Your task to perform on an android device: Search for seafood restaurants on Google Maps Image 0: 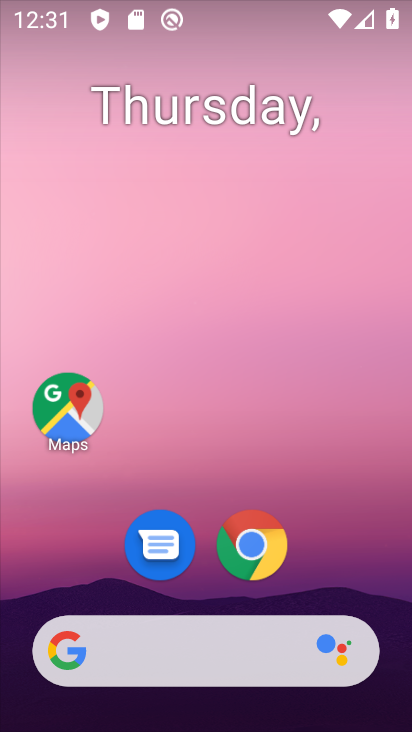
Step 0: drag from (314, 587) to (271, 247)
Your task to perform on an android device: Search for seafood restaurants on Google Maps Image 1: 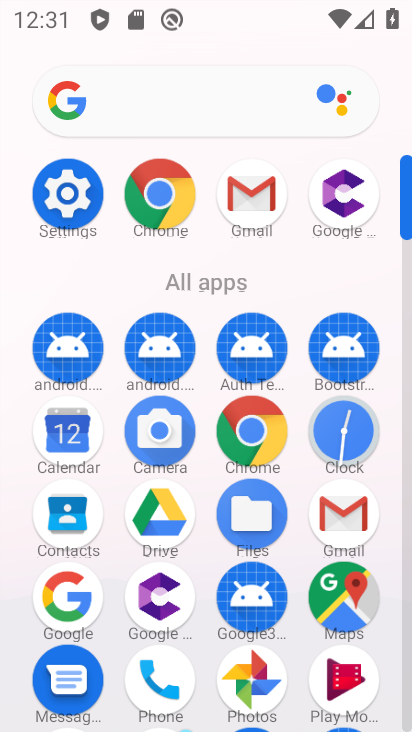
Step 1: click (333, 611)
Your task to perform on an android device: Search for seafood restaurants on Google Maps Image 2: 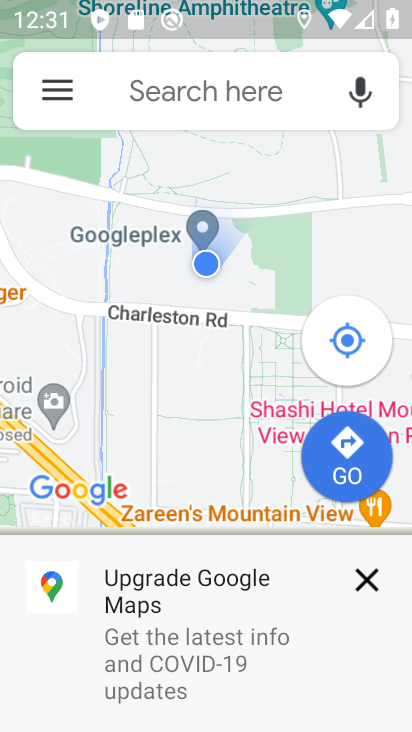
Step 2: click (172, 112)
Your task to perform on an android device: Search for seafood restaurants on Google Maps Image 3: 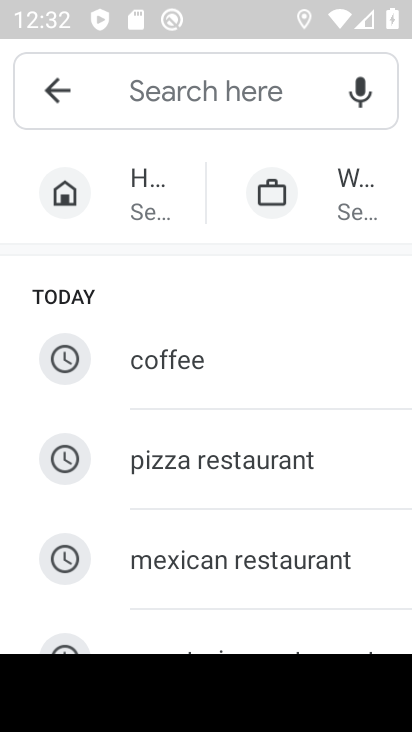
Step 3: drag from (215, 576) to (210, 282)
Your task to perform on an android device: Search for seafood restaurants on Google Maps Image 4: 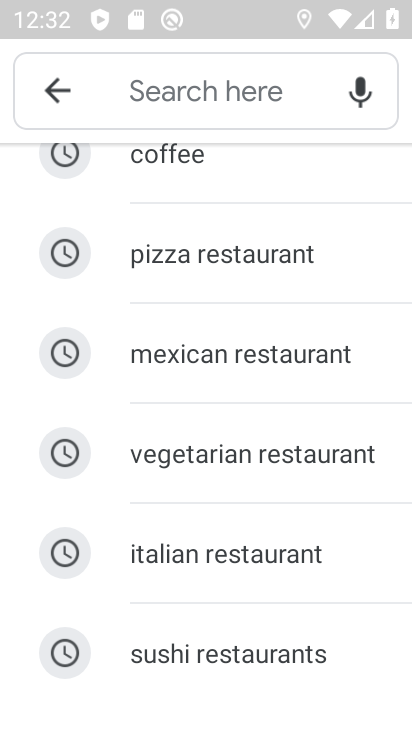
Step 4: drag from (206, 597) to (202, 322)
Your task to perform on an android device: Search for seafood restaurants on Google Maps Image 5: 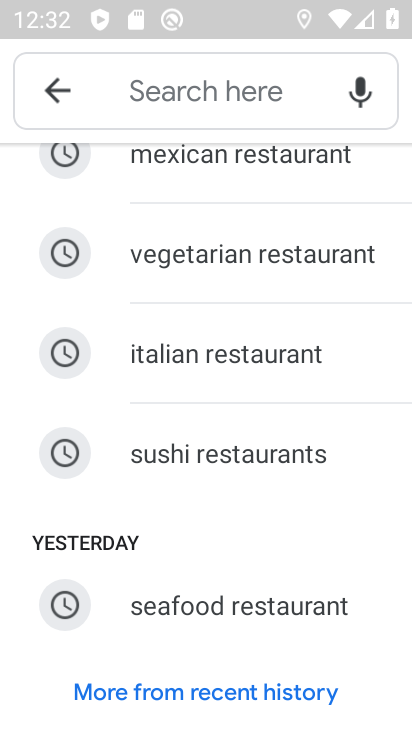
Step 5: click (218, 625)
Your task to perform on an android device: Search for seafood restaurants on Google Maps Image 6: 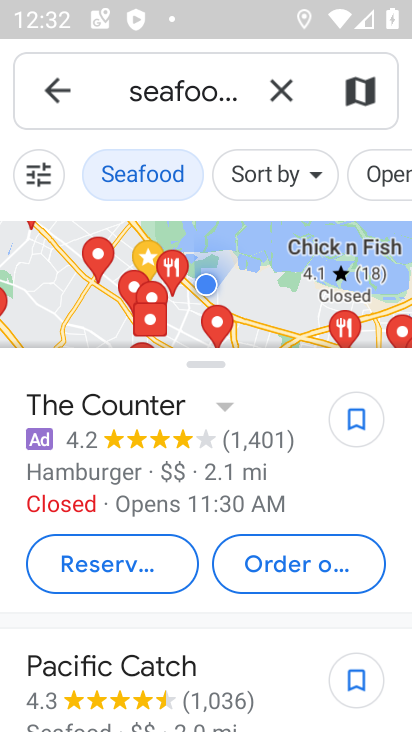
Step 6: task complete